Your task to perform on an android device: Is it going to rain this weekend? Image 0: 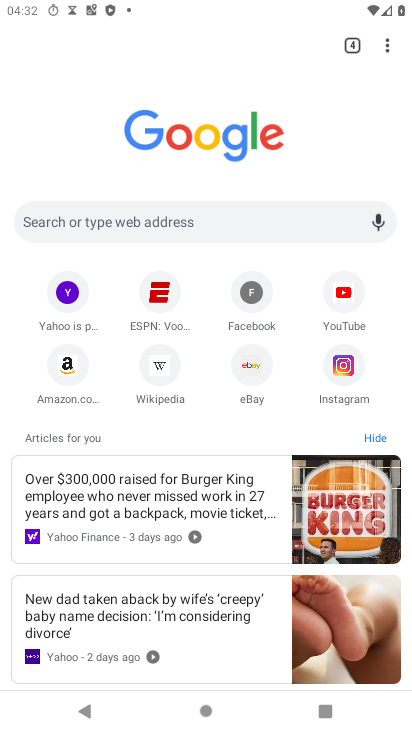
Step 0: press home button
Your task to perform on an android device: Is it going to rain this weekend? Image 1: 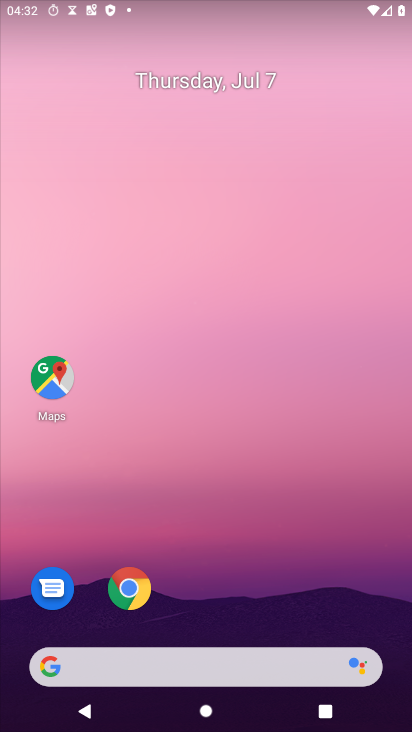
Step 1: click (58, 674)
Your task to perform on an android device: Is it going to rain this weekend? Image 2: 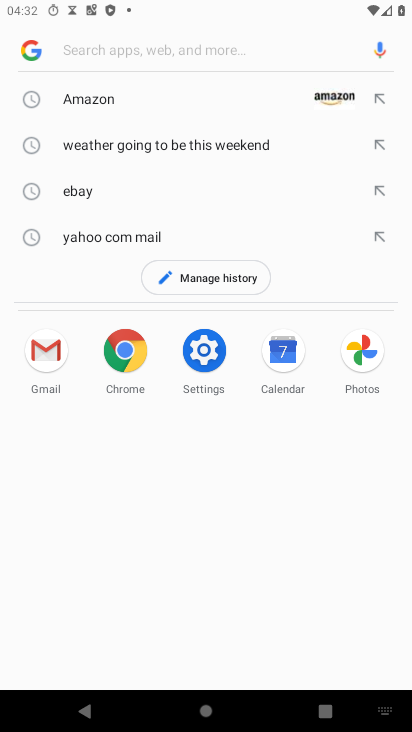
Step 2: type "Is it going to rain this weekend?"
Your task to perform on an android device: Is it going to rain this weekend? Image 3: 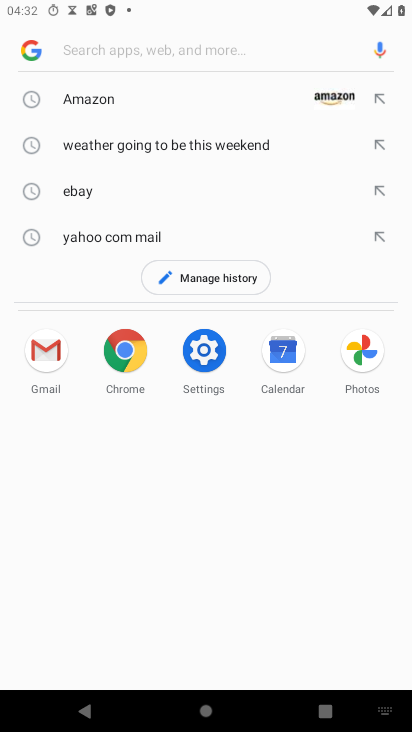
Step 3: click (158, 58)
Your task to perform on an android device: Is it going to rain this weekend? Image 4: 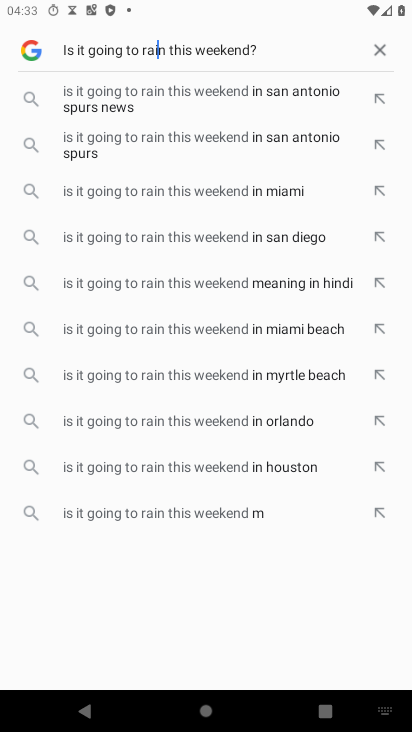
Step 4: click (210, 512)
Your task to perform on an android device: Is it going to rain this weekend? Image 5: 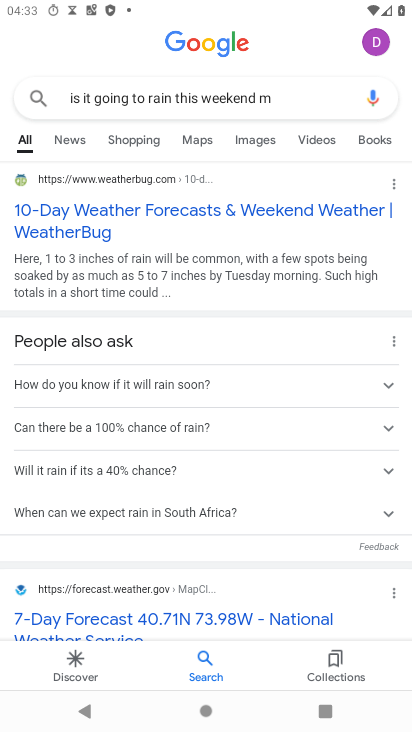
Step 5: task complete